Your task to perform on an android device: What's the weather going to be this weekend? Image 0: 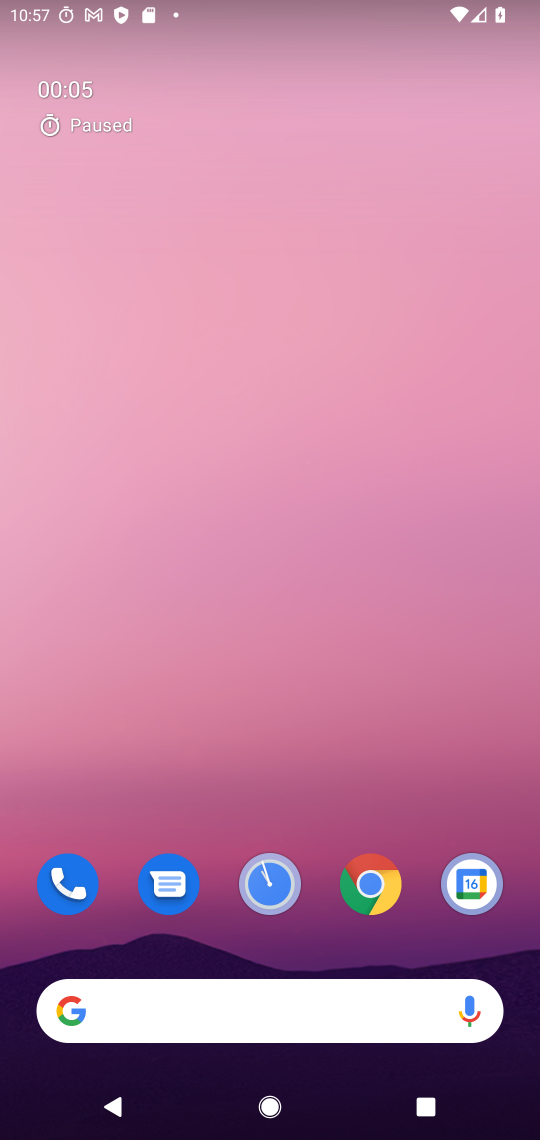
Step 0: click (255, 1029)
Your task to perform on an android device: What's the weather going to be this weekend? Image 1: 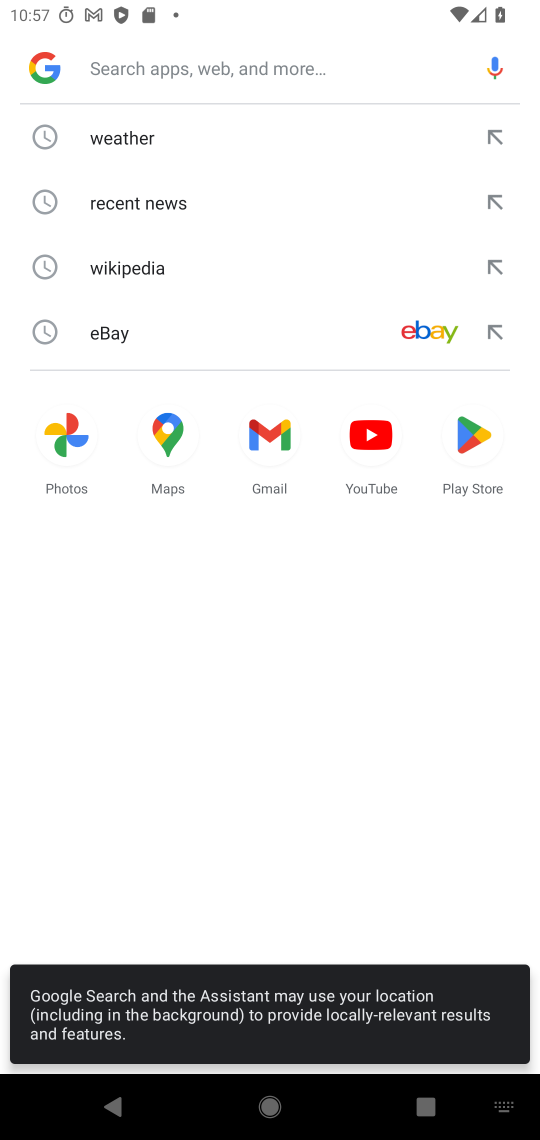
Step 1: click (141, 131)
Your task to perform on an android device: What's the weather going to be this weekend? Image 2: 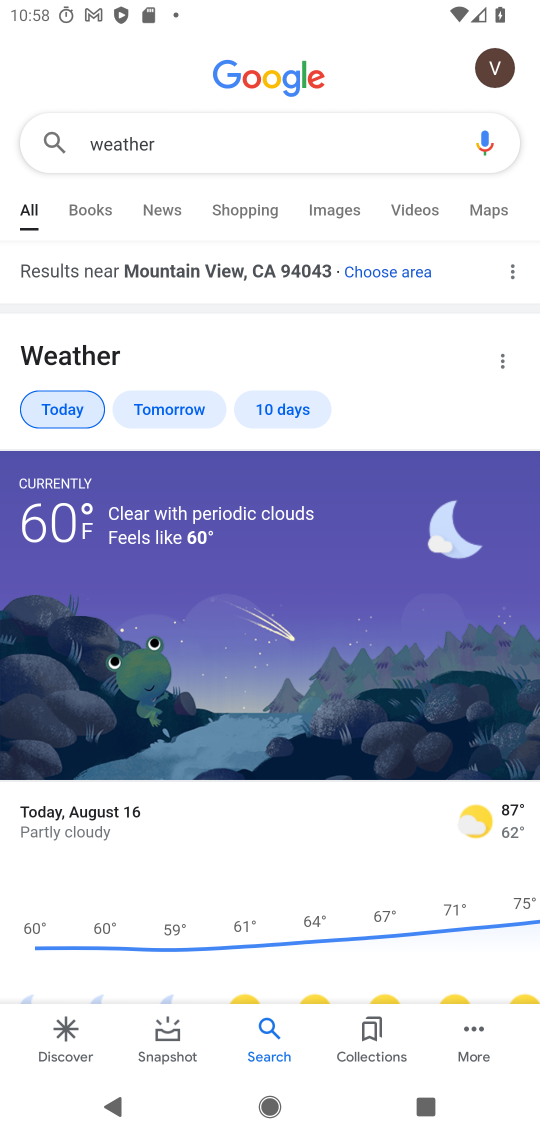
Step 2: click (281, 419)
Your task to perform on an android device: What's the weather going to be this weekend? Image 3: 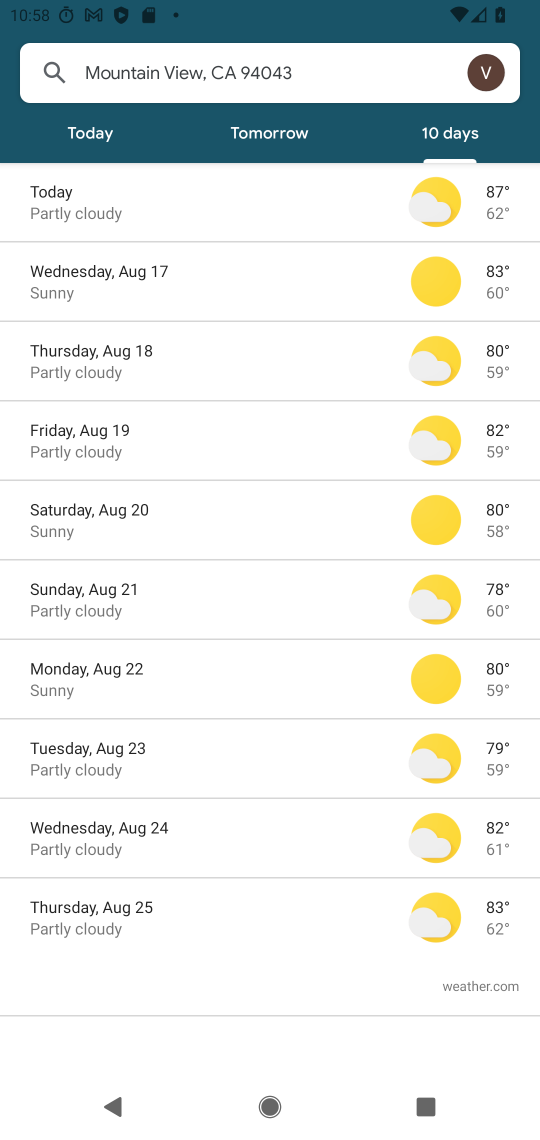
Step 3: task complete